Your task to perform on an android device: Go to Wikipedia Image 0: 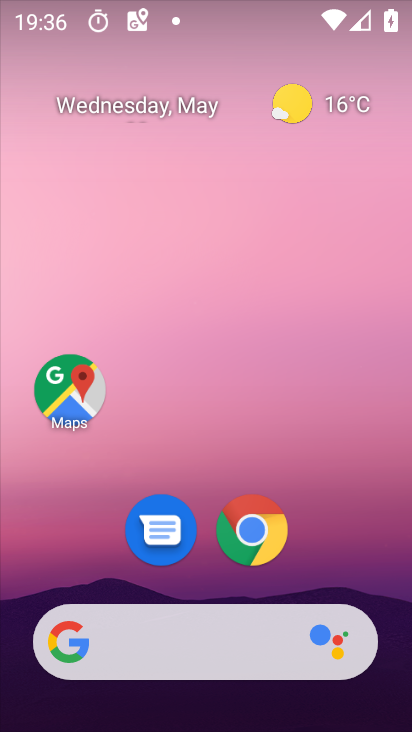
Step 0: click (249, 527)
Your task to perform on an android device: Go to Wikipedia Image 1: 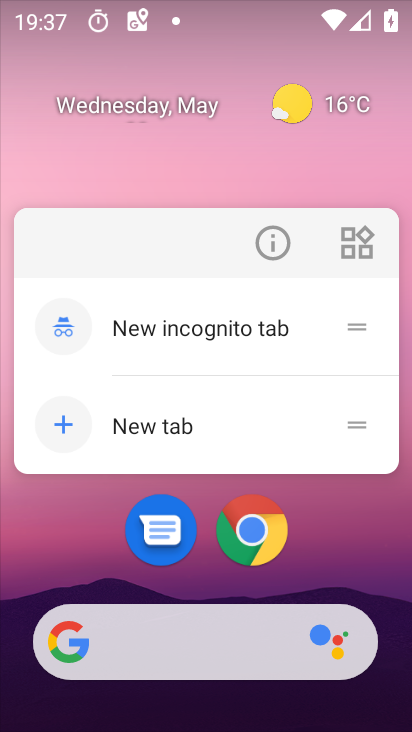
Step 1: click (250, 515)
Your task to perform on an android device: Go to Wikipedia Image 2: 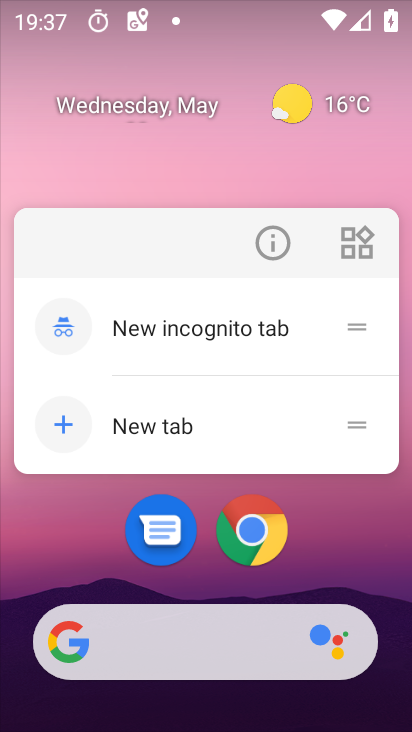
Step 2: drag from (211, 583) to (222, 159)
Your task to perform on an android device: Go to Wikipedia Image 3: 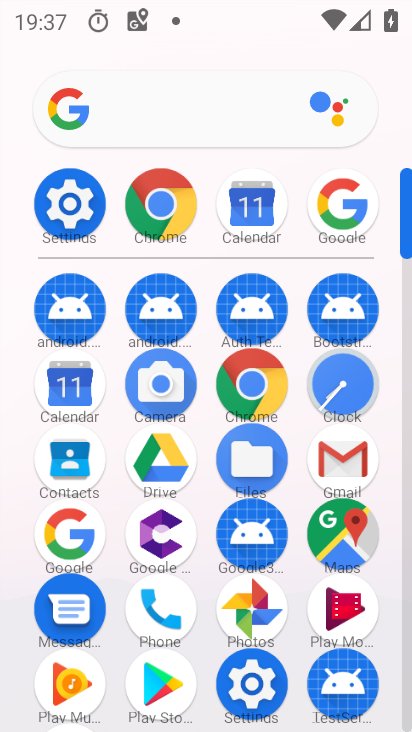
Step 3: click (162, 203)
Your task to perform on an android device: Go to Wikipedia Image 4: 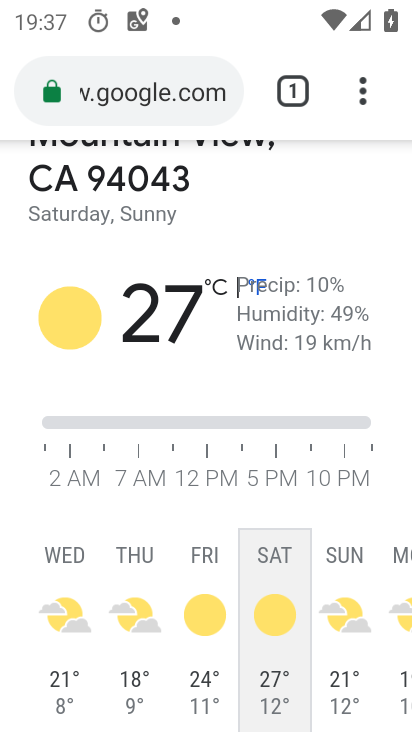
Step 4: click (137, 90)
Your task to perform on an android device: Go to Wikipedia Image 5: 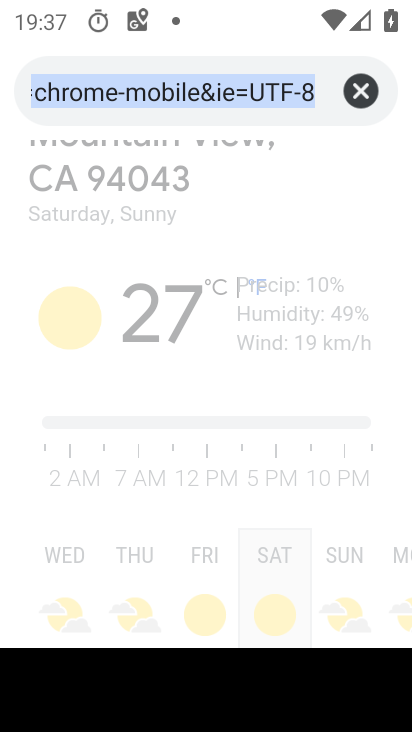
Step 5: type "wikipedia"
Your task to perform on an android device: Go to Wikipedia Image 6: 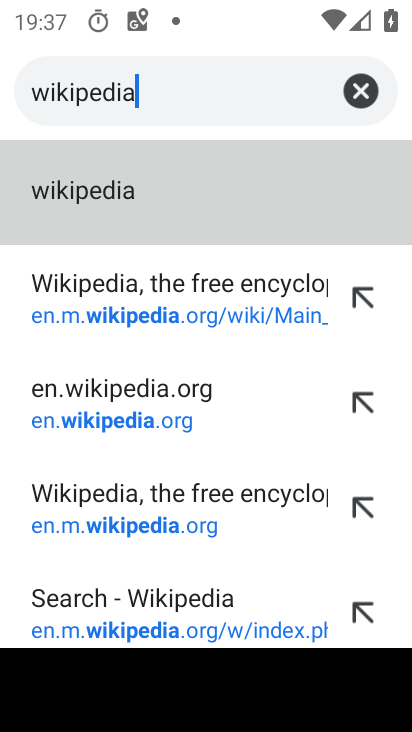
Step 6: click (181, 185)
Your task to perform on an android device: Go to Wikipedia Image 7: 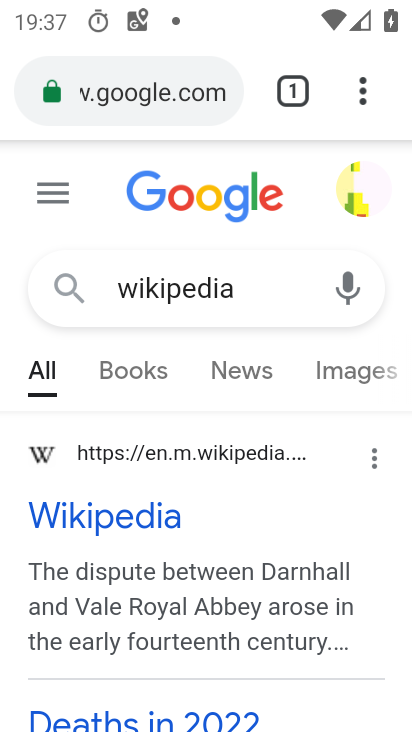
Step 7: task complete